Your task to perform on an android device: toggle airplane mode Image 0: 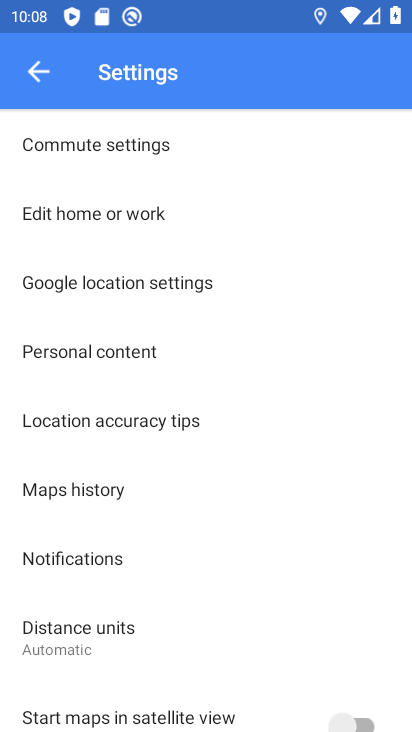
Step 0: press home button
Your task to perform on an android device: toggle airplane mode Image 1: 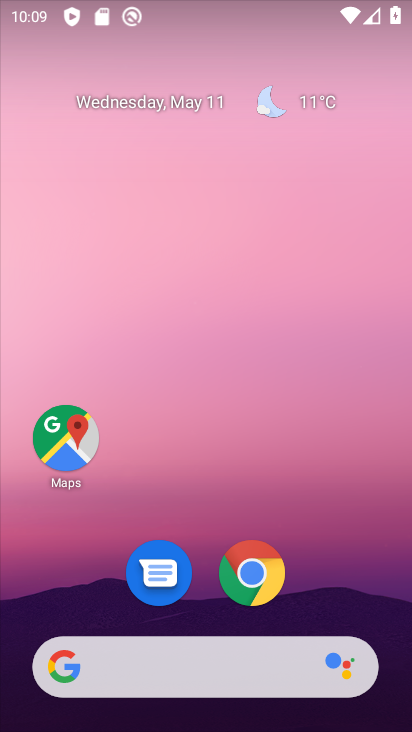
Step 1: drag from (197, 624) to (262, 98)
Your task to perform on an android device: toggle airplane mode Image 2: 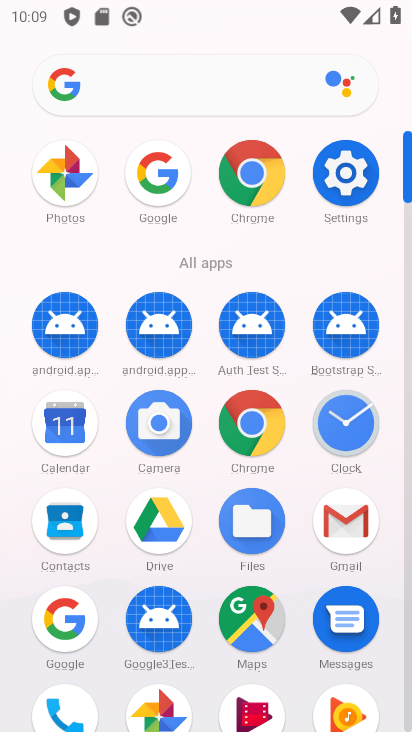
Step 2: click (353, 177)
Your task to perform on an android device: toggle airplane mode Image 3: 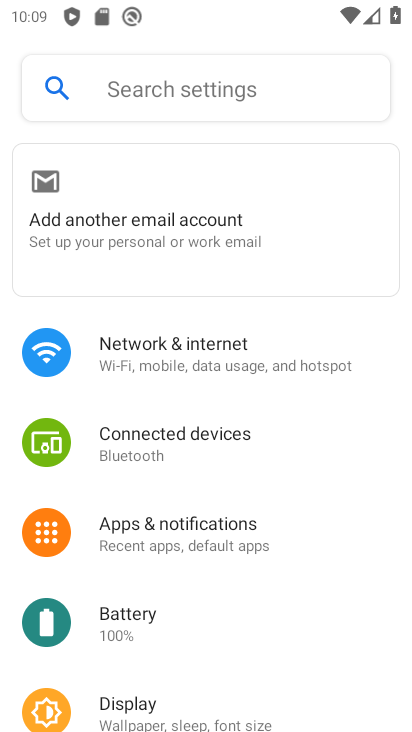
Step 3: click (167, 354)
Your task to perform on an android device: toggle airplane mode Image 4: 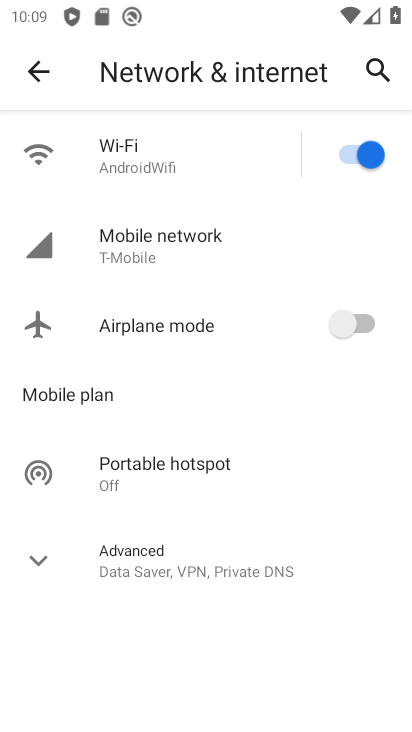
Step 4: click (369, 330)
Your task to perform on an android device: toggle airplane mode Image 5: 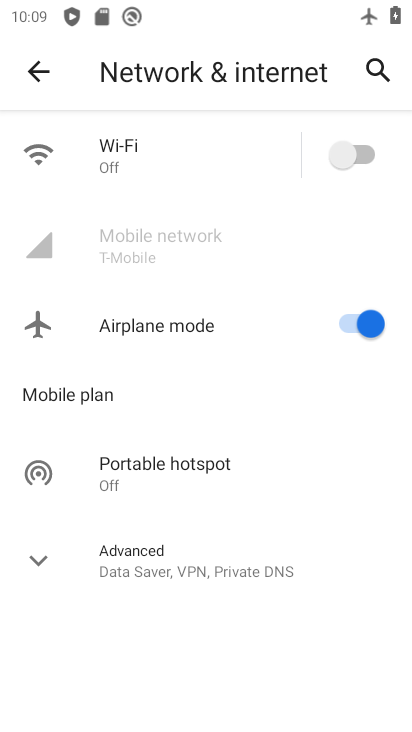
Step 5: task complete